Your task to perform on an android device: Open Chrome and go to settings Image 0: 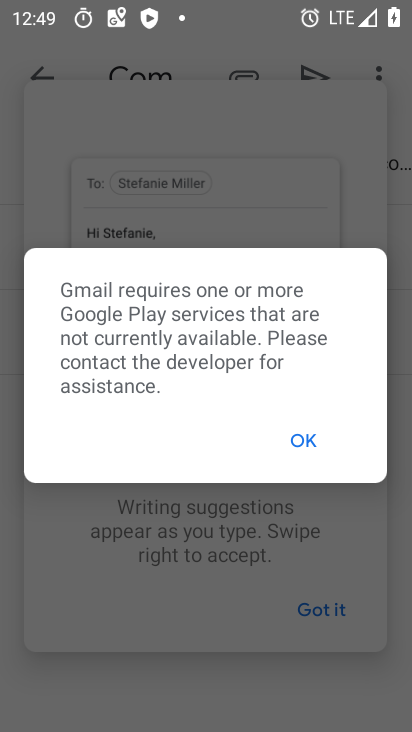
Step 0: press home button
Your task to perform on an android device: Open Chrome and go to settings Image 1: 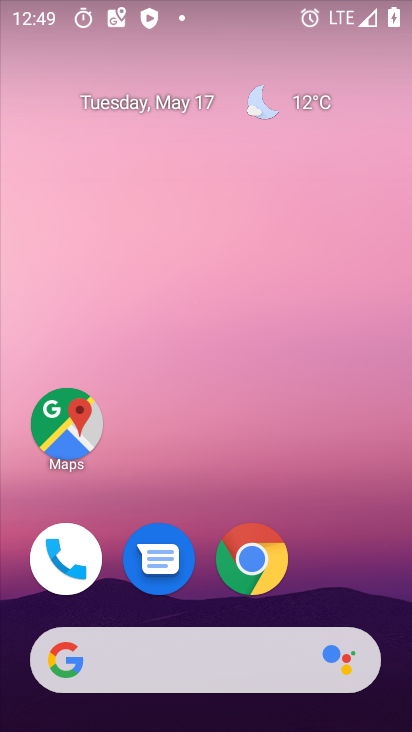
Step 1: click (269, 562)
Your task to perform on an android device: Open Chrome and go to settings Image 2: 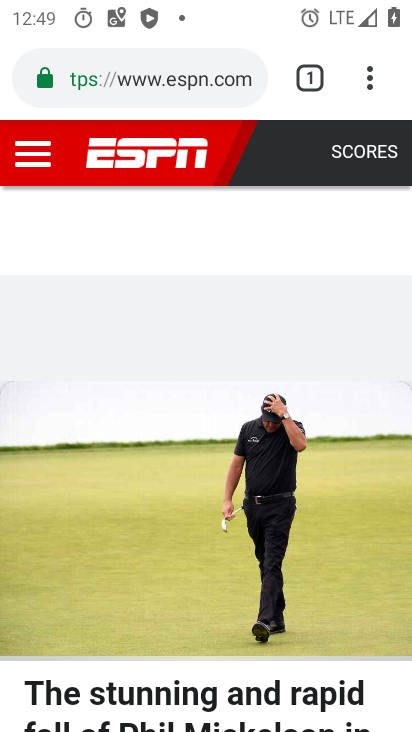
Step 2: task complete